Your task to perform on an android device: Open my contact list Image 0: 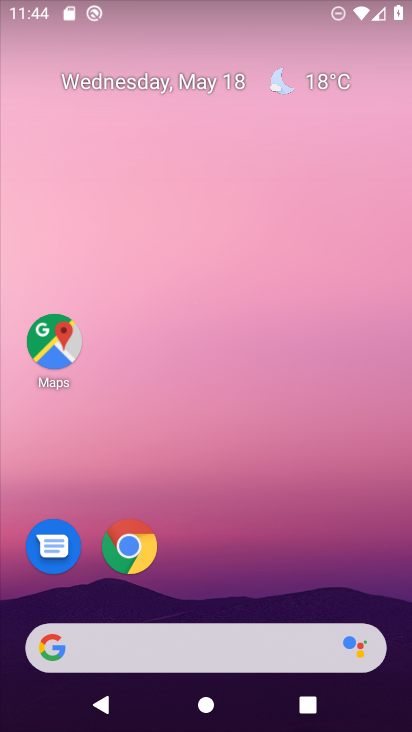
Step 0: drag from (232, 719) to (239, 301)
Your task to perform on an android device: Open my contact list Image 1: 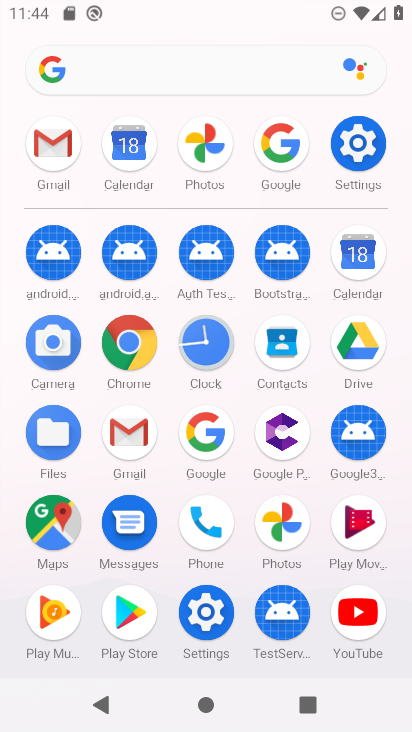
Step 1: click (269, 346)
Your task to perform on an android device: Open my contact list Image 2: 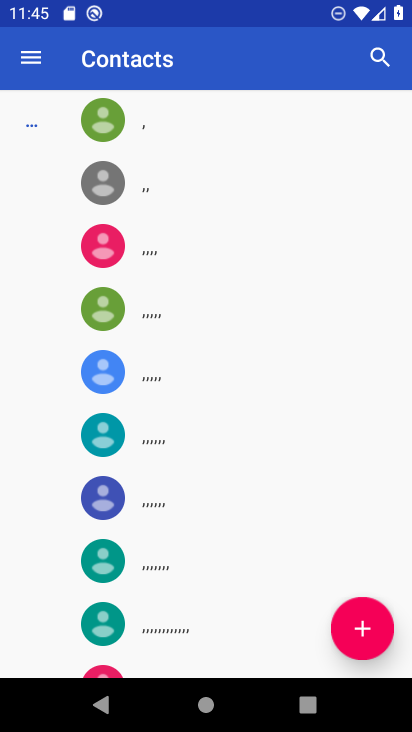
Step 2: task complete